Your task to perform on an android device: Open Yahoo.com Image 0: 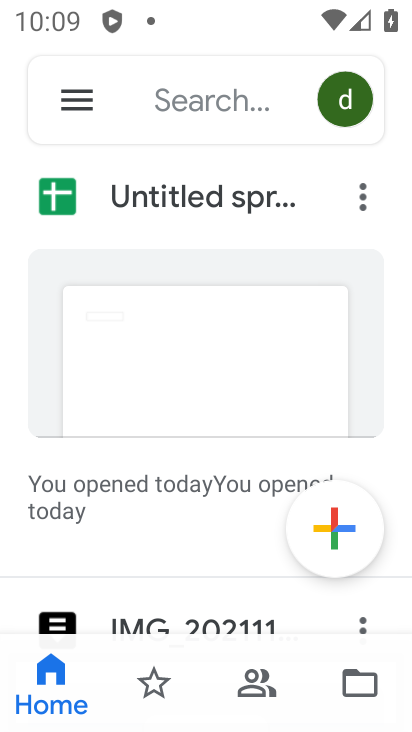
Step 0: press home button
Your task to perform on an android device: Open Yahoo.com Image 1: 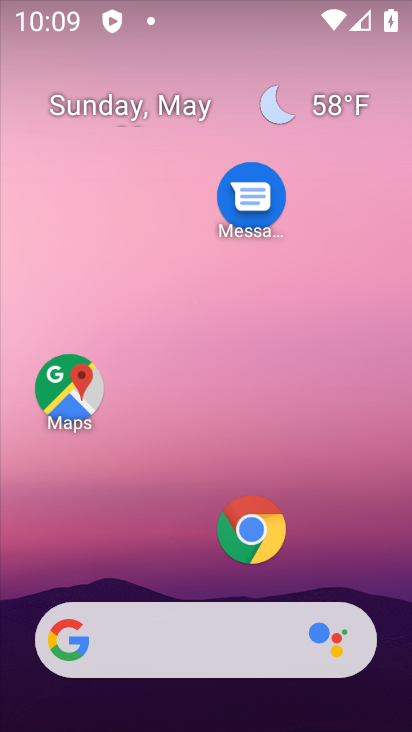
Step 1: click (253, 554)
Your task to perform on an android device: Open Yahoo.com Image 2: 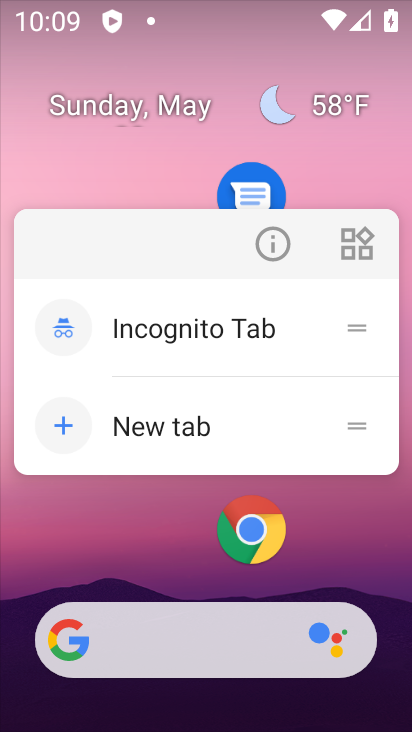
Step 2: click (258, 531)
Your task to perform on an android device: Open Yahoo.com Image 3: 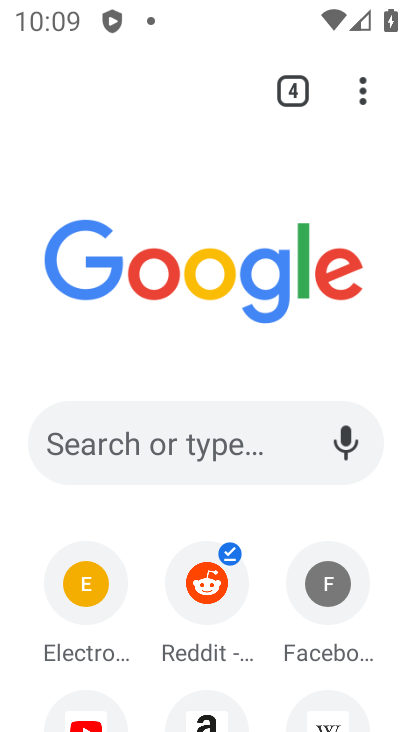
Step 3: drag from (193, 587) to (240, 294)
Your task to perform on an android device: Open Yahoo.com Image 4: 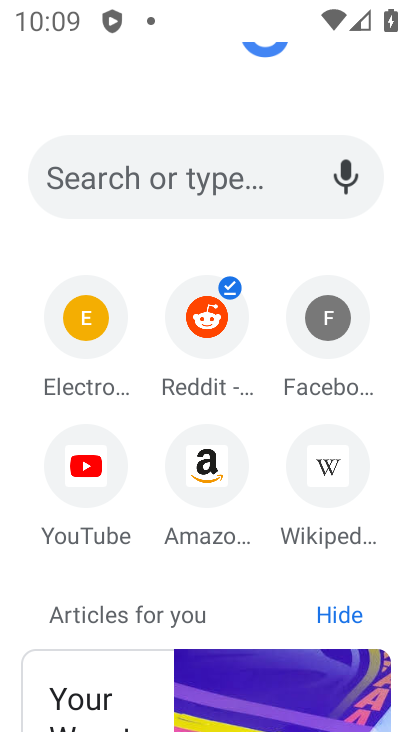
Step 4: click (164, 188)
Your task to perform on an android device: Open Yahoo.com Image 5: 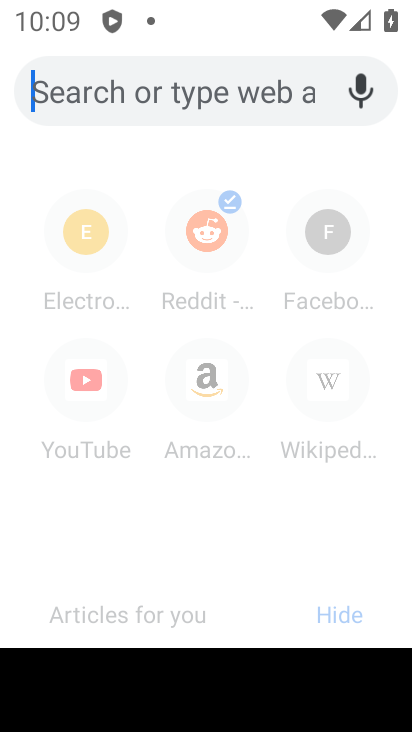
Step 5: type "yahoo.com"
Your task to perform on an android device: Open Yahoo.com Image 6: 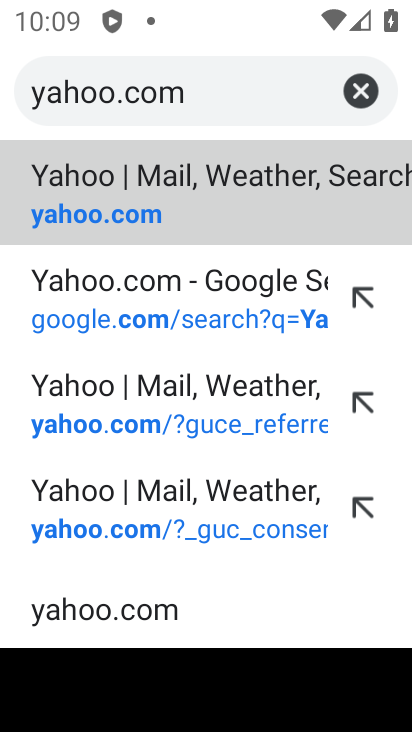
Step 6: click (223, 217)
Your task to perform on an android device: Open Yahoo.com Image 7: 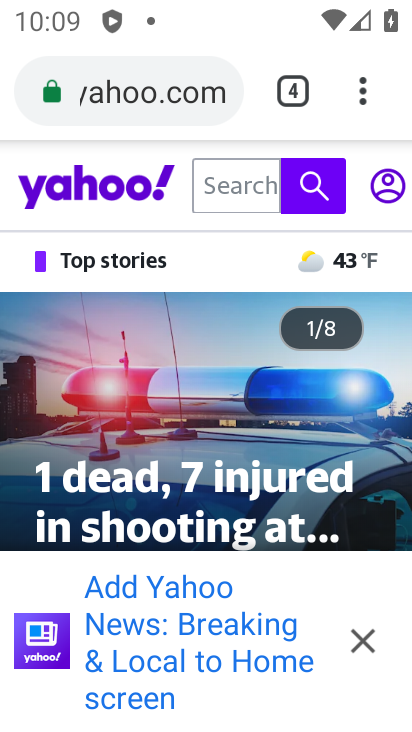
Step 7: task complete